Your task to perform on an android device: Do I have any events today? Image 0: 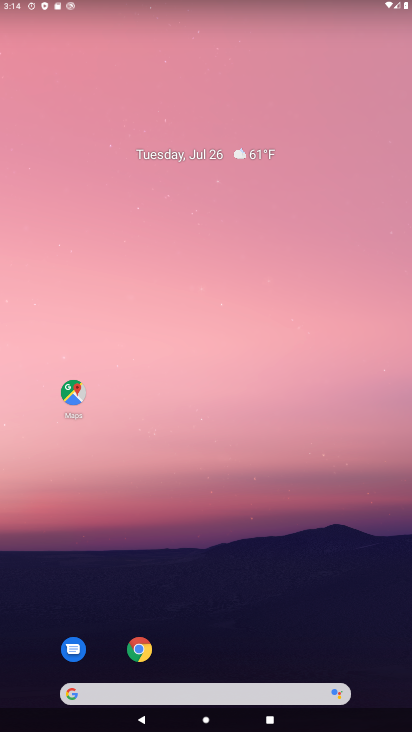
Step 0: drag from (46, 695) to (187, 191)
Your task to perform on an android device: Do I have any events today? Image 1: 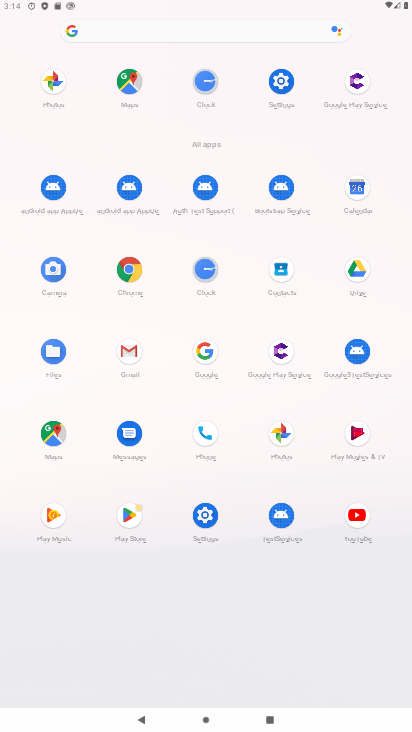
Step 1: click (350, 187)
Your task to perform on an android device: Do I have any events today? Image 2: 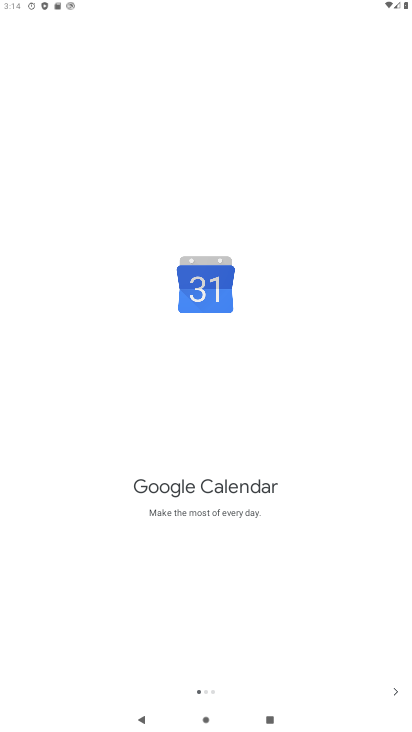
Step 2: click (396, 690)
Your task to perform on an android device: Do I have any events today? Image 3: 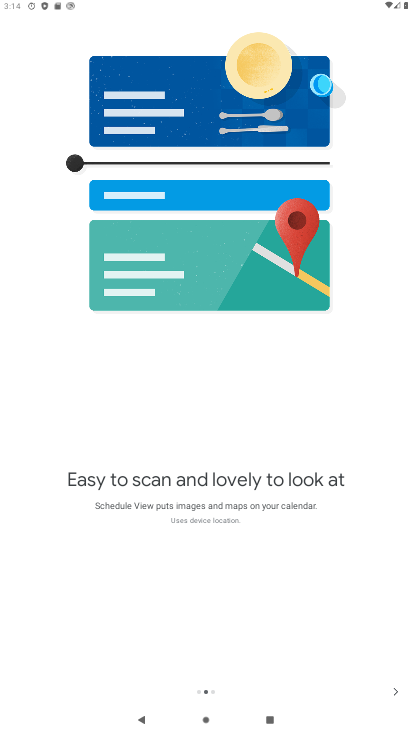
Step 3: click (393, 689)
Your task to perform on an android device: Do I have any events today? Image 4: 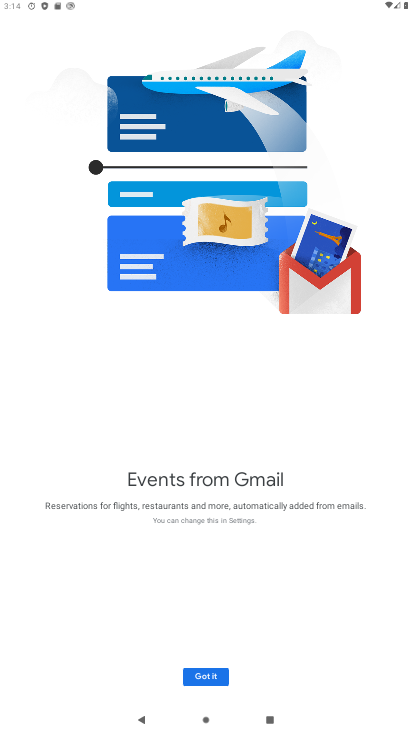
Step 4: click (218, 665)
Your task to perform on an android device: Do I have any events today? Image 5: 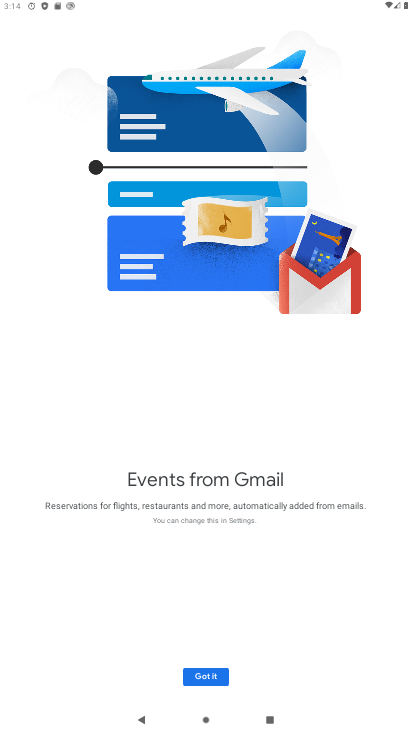
Step 5: click (203, 676)
Your task to perform on an android device: Do I have any events today? Image 6: 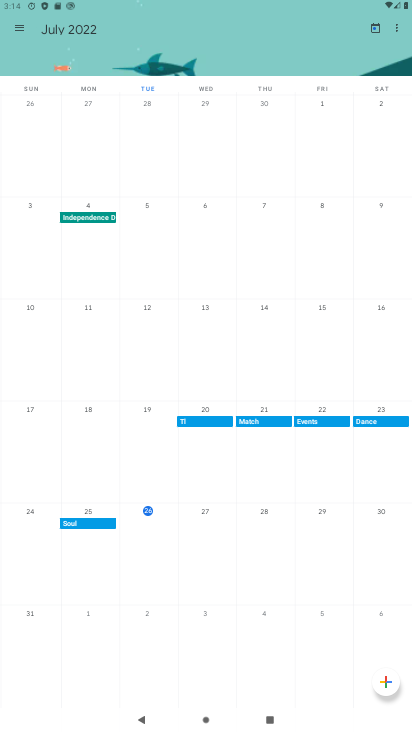
Step 6: click (14, 26)
Your task to perform on an android device: Do I have any events today? Image 7: 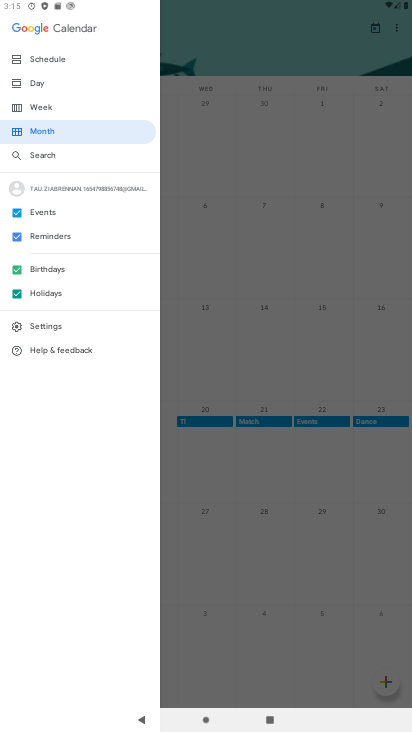
Step 7: task complete